Your task to perform on an android device: open app "VLC for Android" (install if not already installed) and enter user name: "Yves@outlook.com" and password: "internally" Image 0: 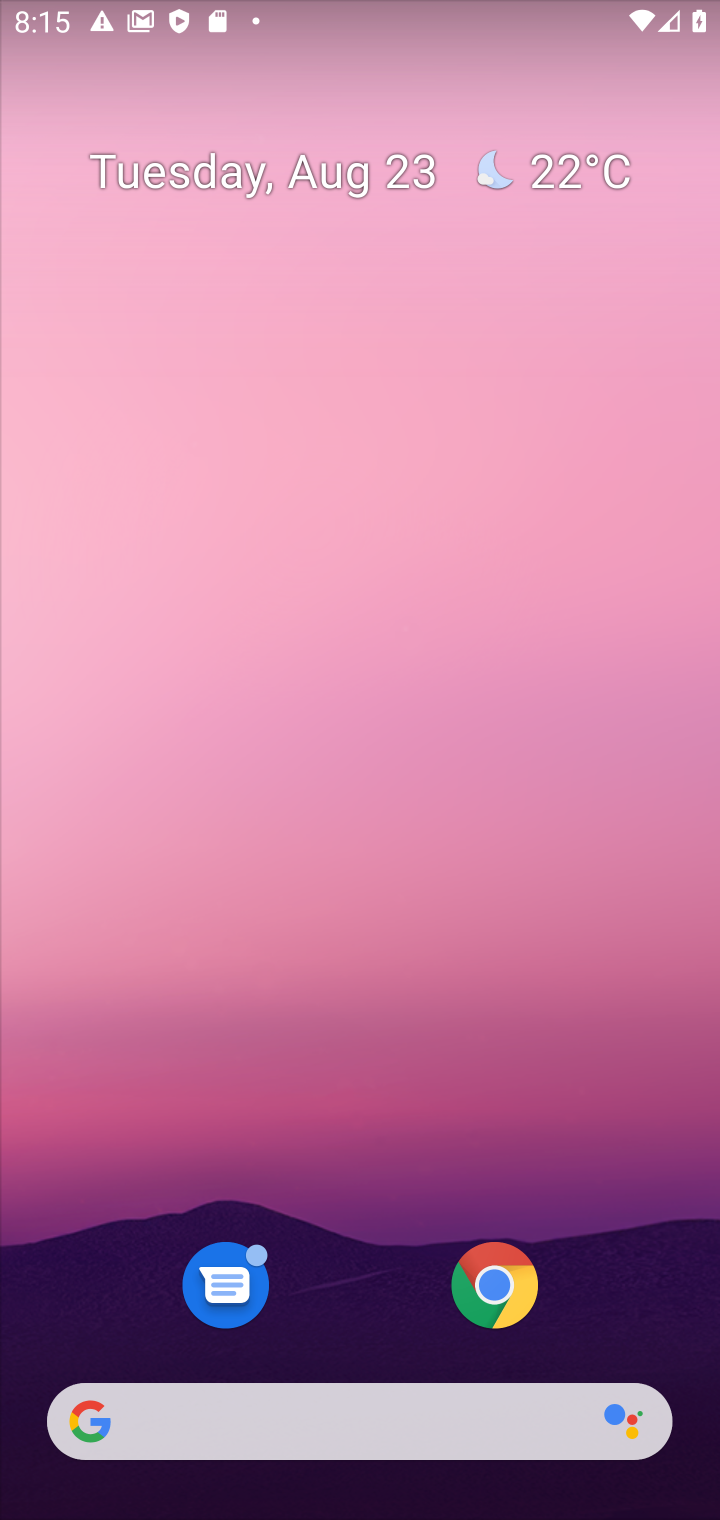
Step 0: drag from (638, 1083) to (562, 445)
Your task to perform on an android device: open app "VLC for Android" (install if not already installed) and enter user name: "Yves@outlook.com" and password: "internally" Image 1: 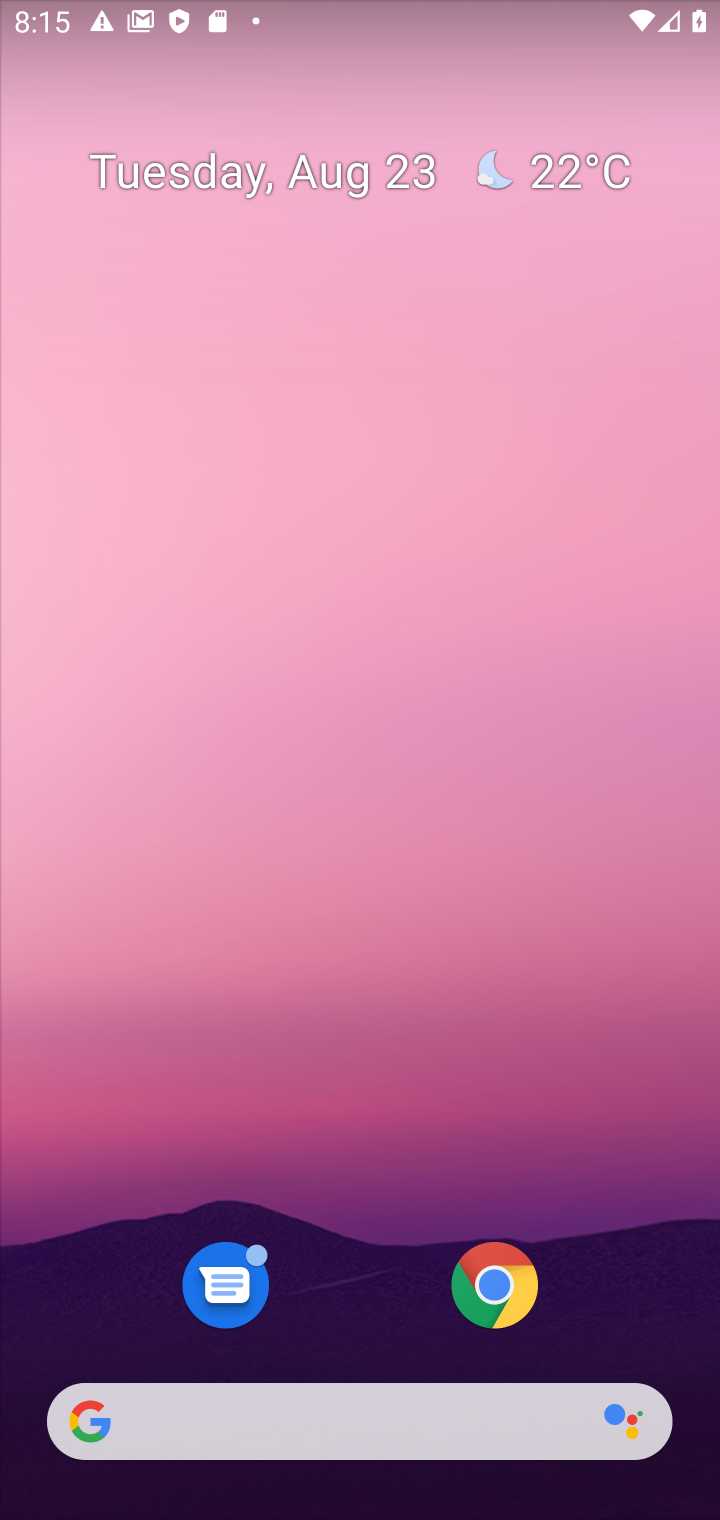
Step 1: drag from (681, 1333) to (528, 278)
Your task to perform on an android device: open app "VLC for Android" (install if not already installed) and enter user name: "Yves@outlook.com" and password: "internally" Image 2: 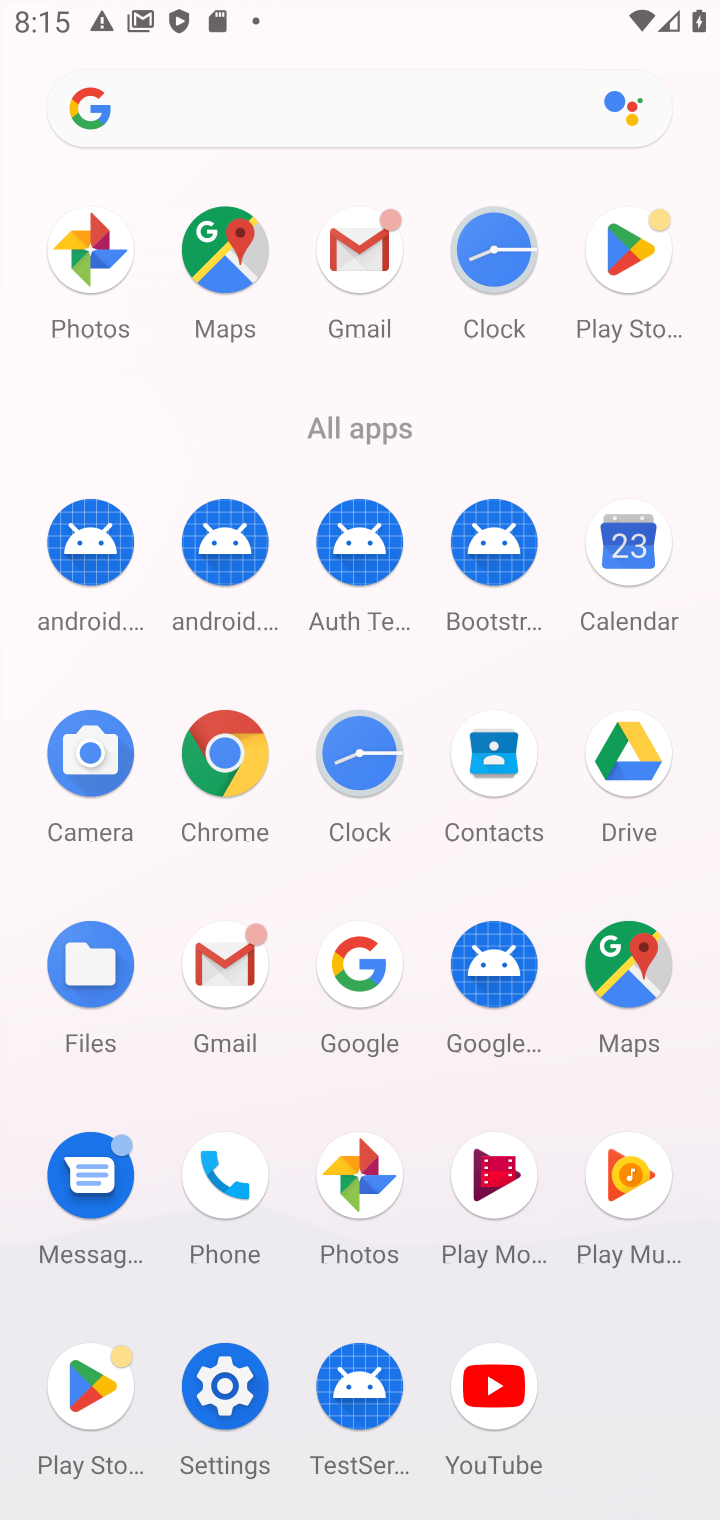
Step 2: click (81, 1378)
Your task to perform on an android device: open app "VLC for Android" (install if not already installed) and enter user name: "Yves@outlook.com" and password: "internally" Image 3: 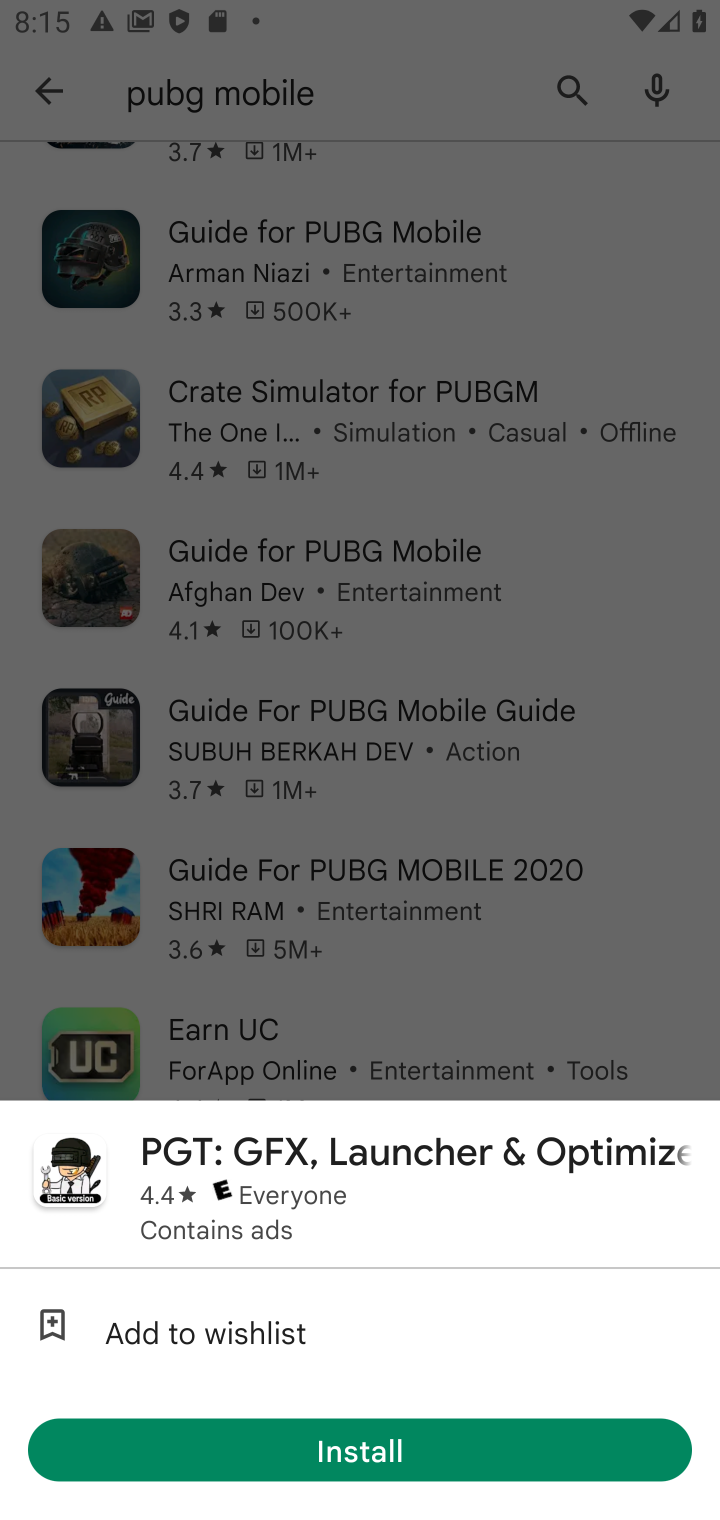
Step 3: click (418, 692)
Your task to perform on an android device: open app "VLC for Android" (install if not already installed) and enter user name: "Yves@outlook.com" and password: "internally" Image 4: 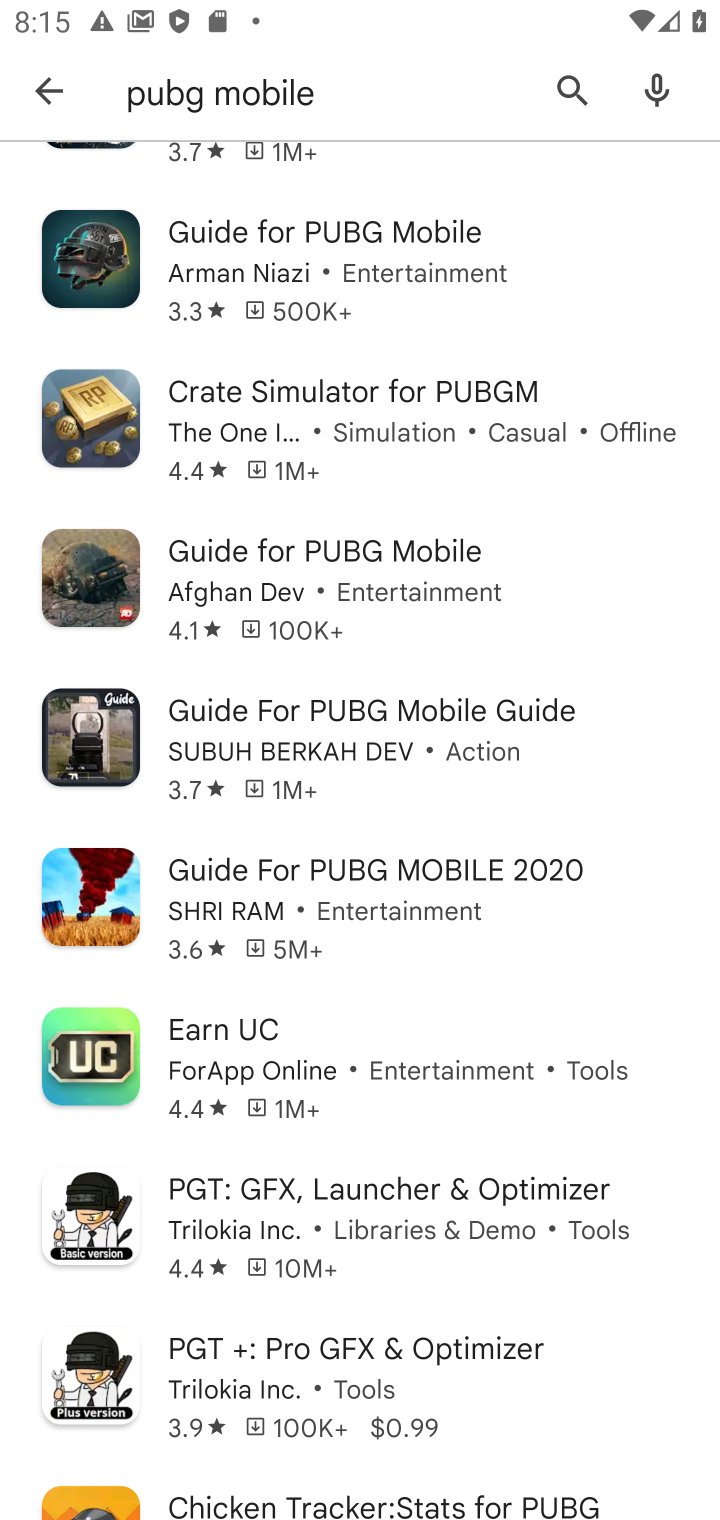
Step 4: click (579, 83)
Your task to perform on an android device: open app "VLC for Android" (install if not already installed) and enter user name: "Yves@outlook.com" and password: "internally" Image 5: 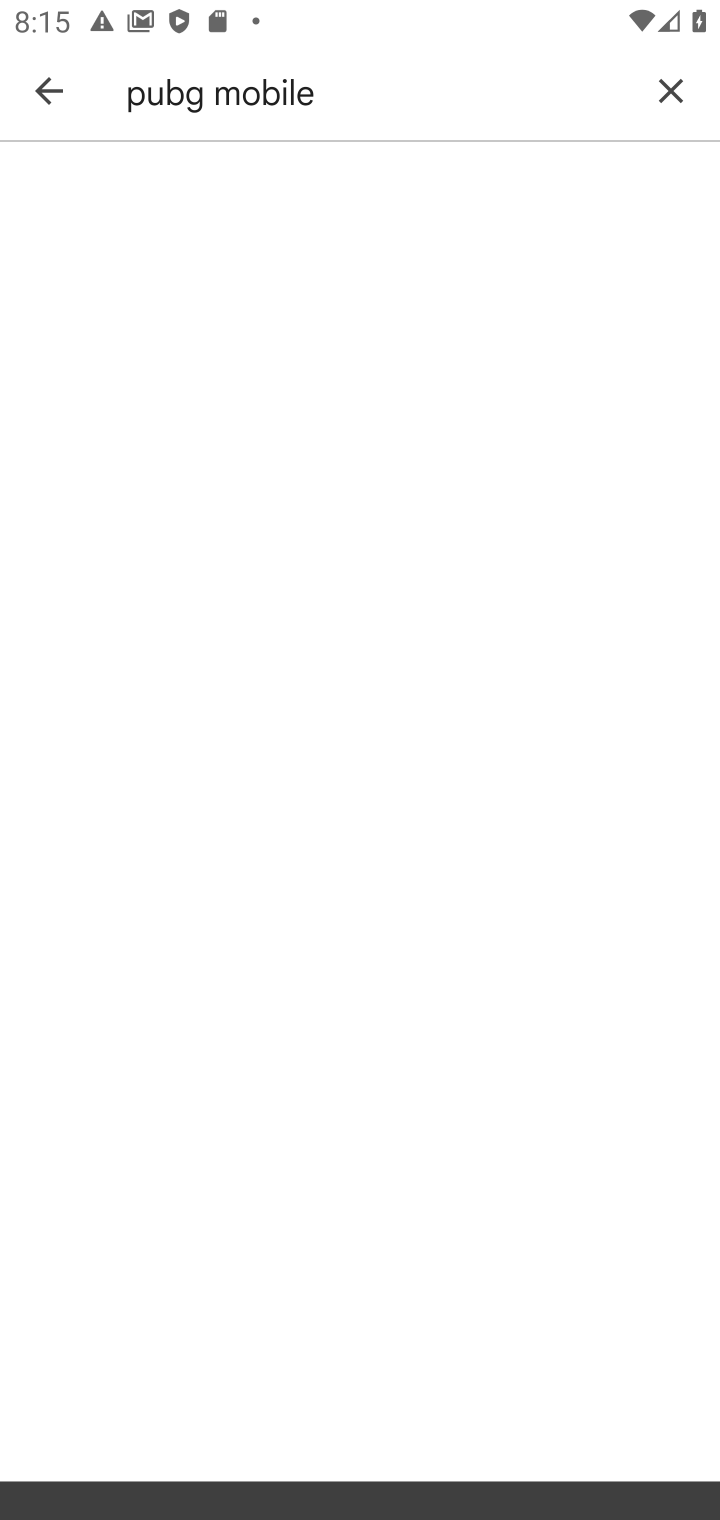
Step 5: click (579, 83)
Your task to perform on an android device: open app "VLC for Android" (install if not already installed) and enter user name: "Yves@outlook.com" and password: "internally" Image 6: 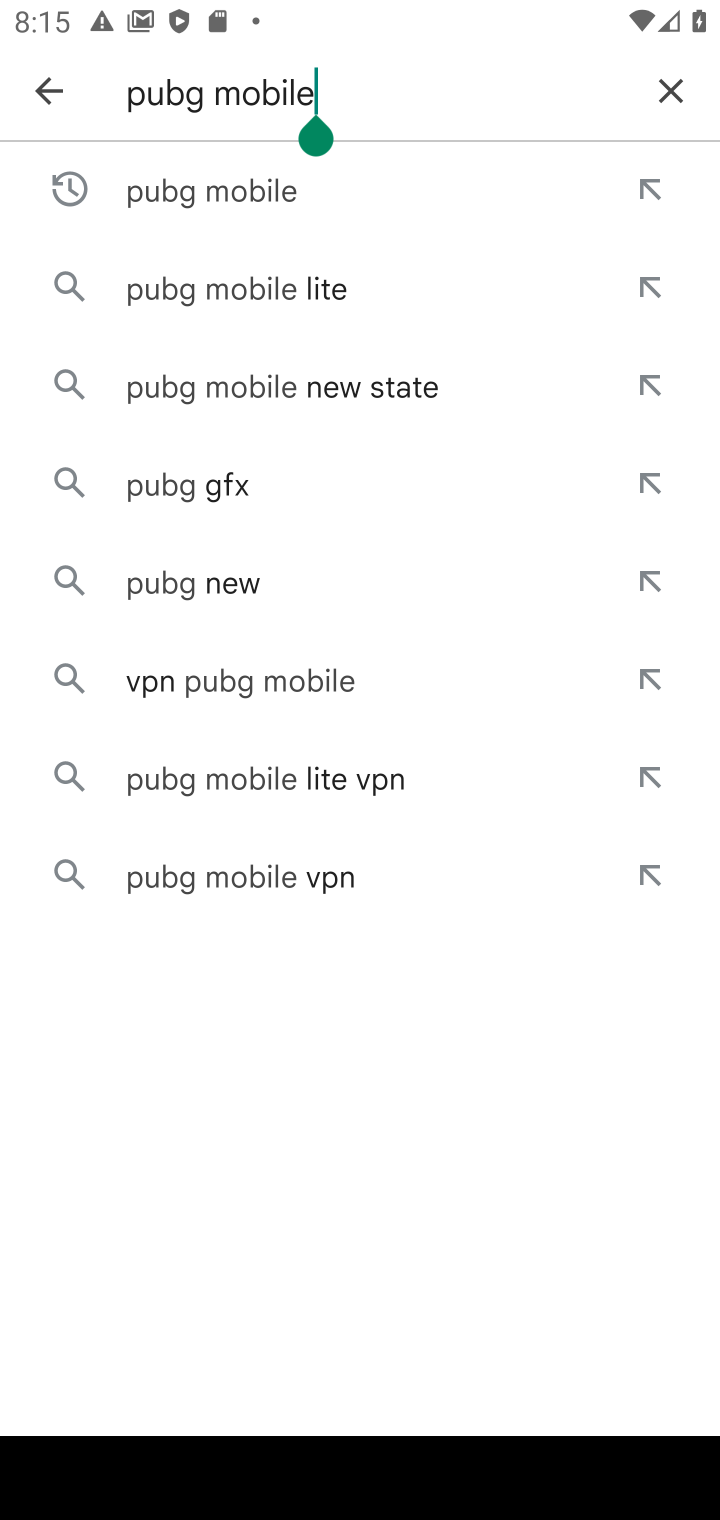
Step 6: click (669, 83)
Your task to perform on an android device: open app "VLC for Android" (install if not already installed) and enter user name: "Yves@outlook.com" and password: "internally" Image 7: 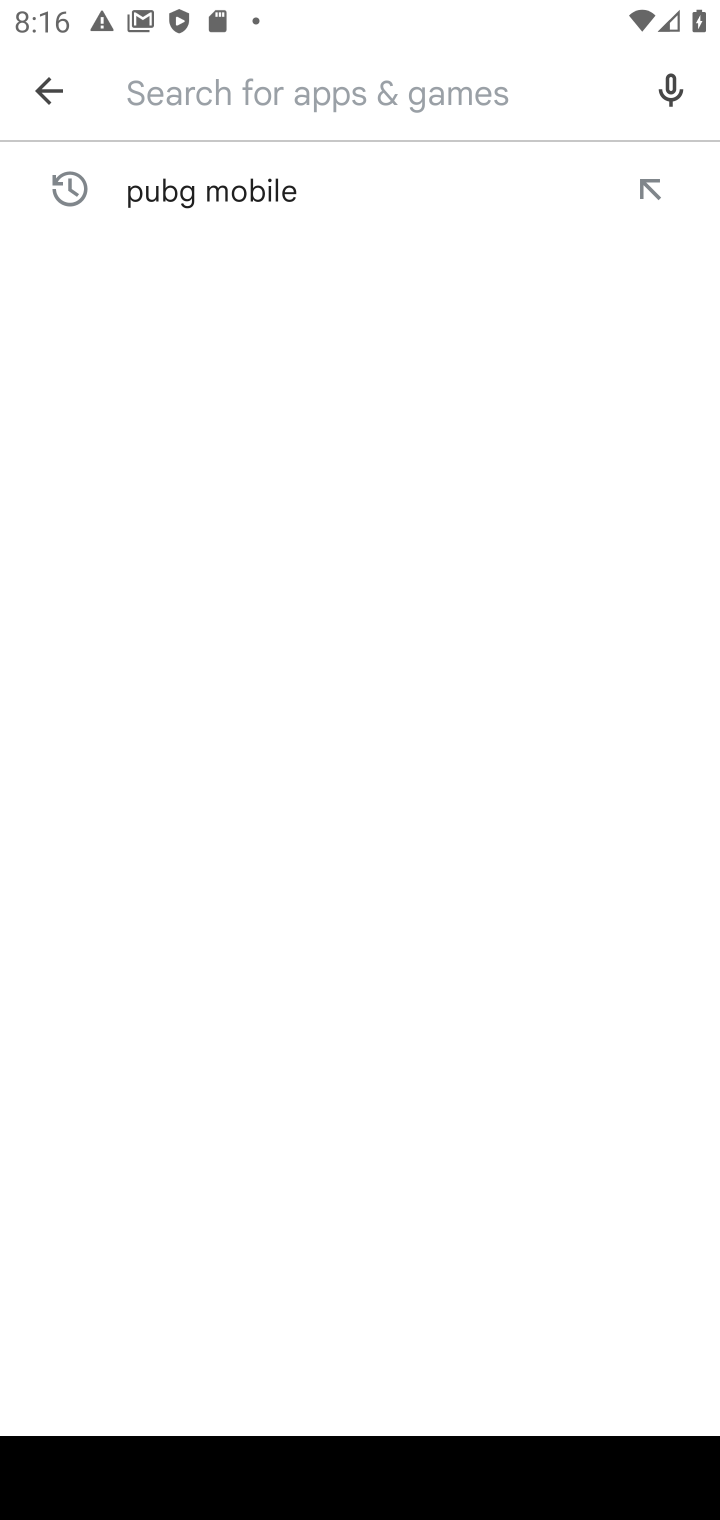
Step 7: type "VLC for Android"
Your task to perform on an android device: open app "VLC for Android" (install if not already installed) and enter user name: "Yves@outlook.com" and password: "internally" Image 8: 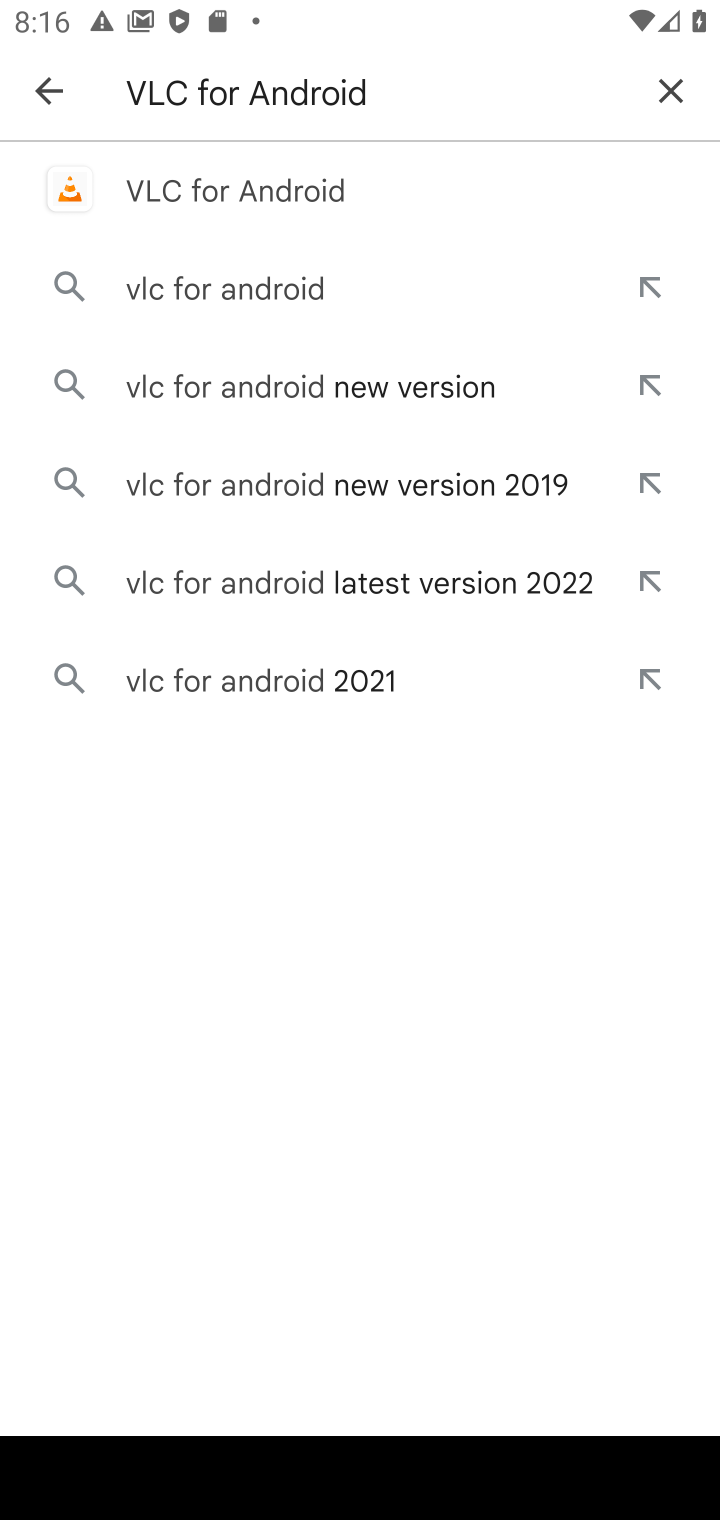
Step 8: click (302, 186)
Your task to perform on an android device: open app "VLC for Android" (install if not already installed) and enter user name: "Yves@outlook.com" and password: "internally" Image 9: 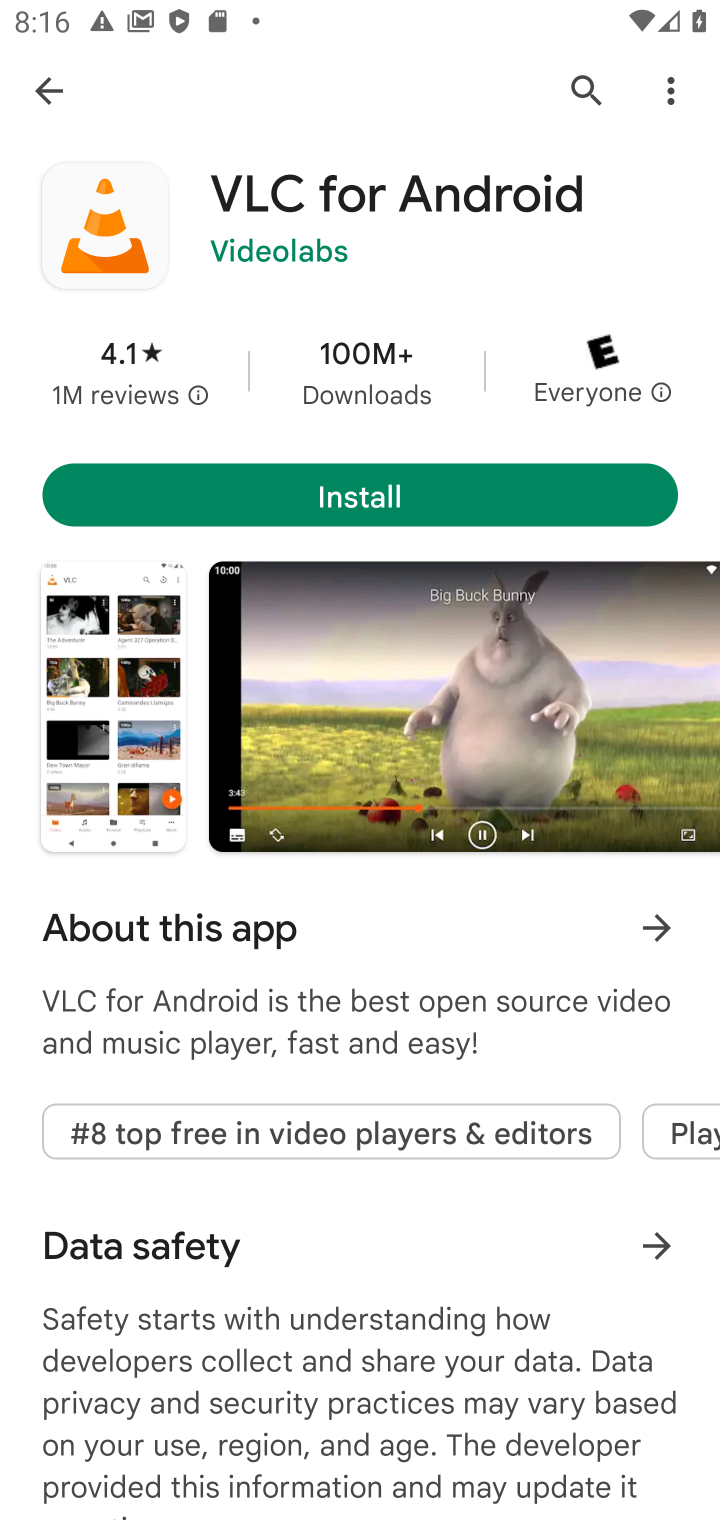
Step 9: click (352, 500)
Your task to perform on an android device: open app "VLC for Android" (install if not already installed) and enter user name: "Yves@outlook.com" and password: "internally" Image 10: 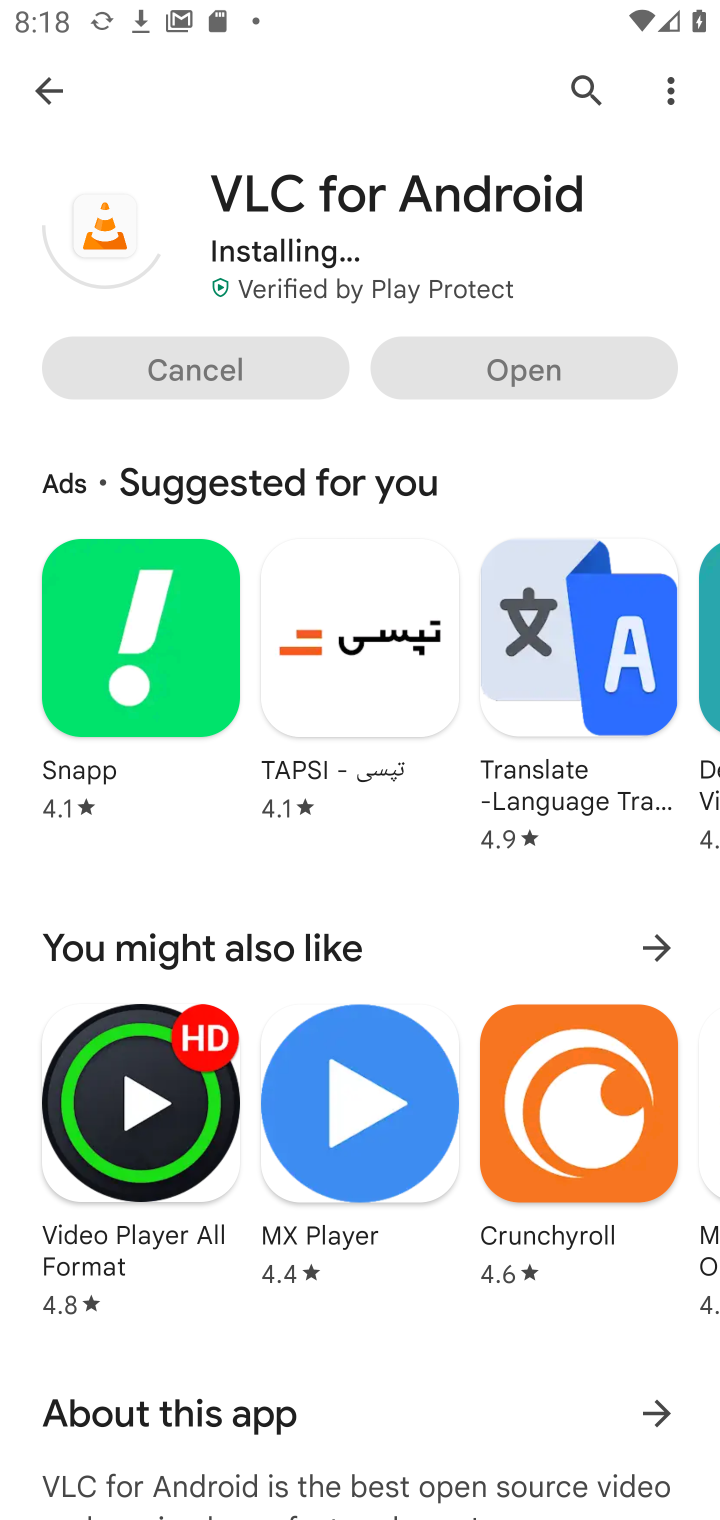
Step 10: click (354, 382)
Your task to perform on an android device: open app "VLC for Android" (install if not already installed) and enter user name: "Yves@outlook.com" and password: "internally" Image 11: 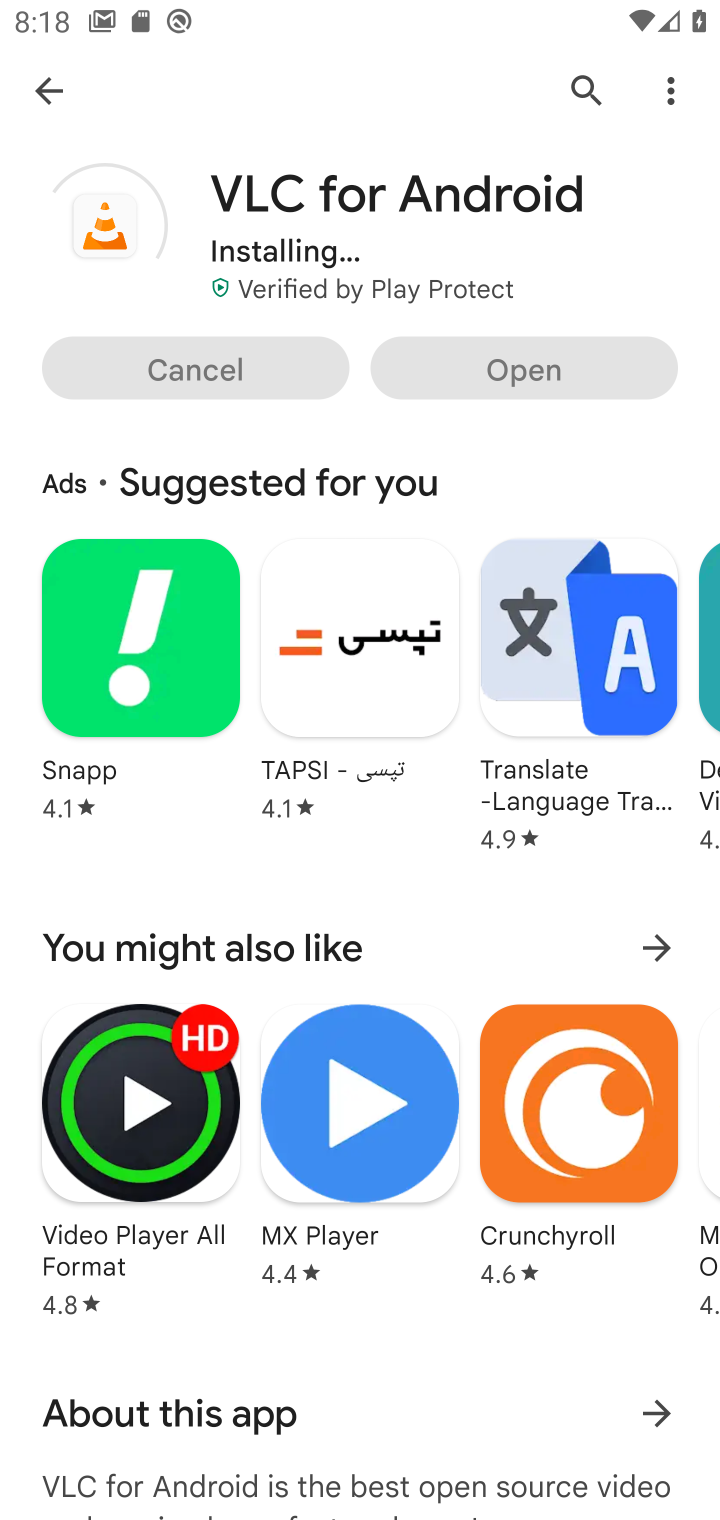
Step 11: click (362, 404)
Your task to perform on an android device: open app "VLC for Android" (install if not already installed) and enter user name: "Yves@outlook.com" and password: "internally" Image 12: 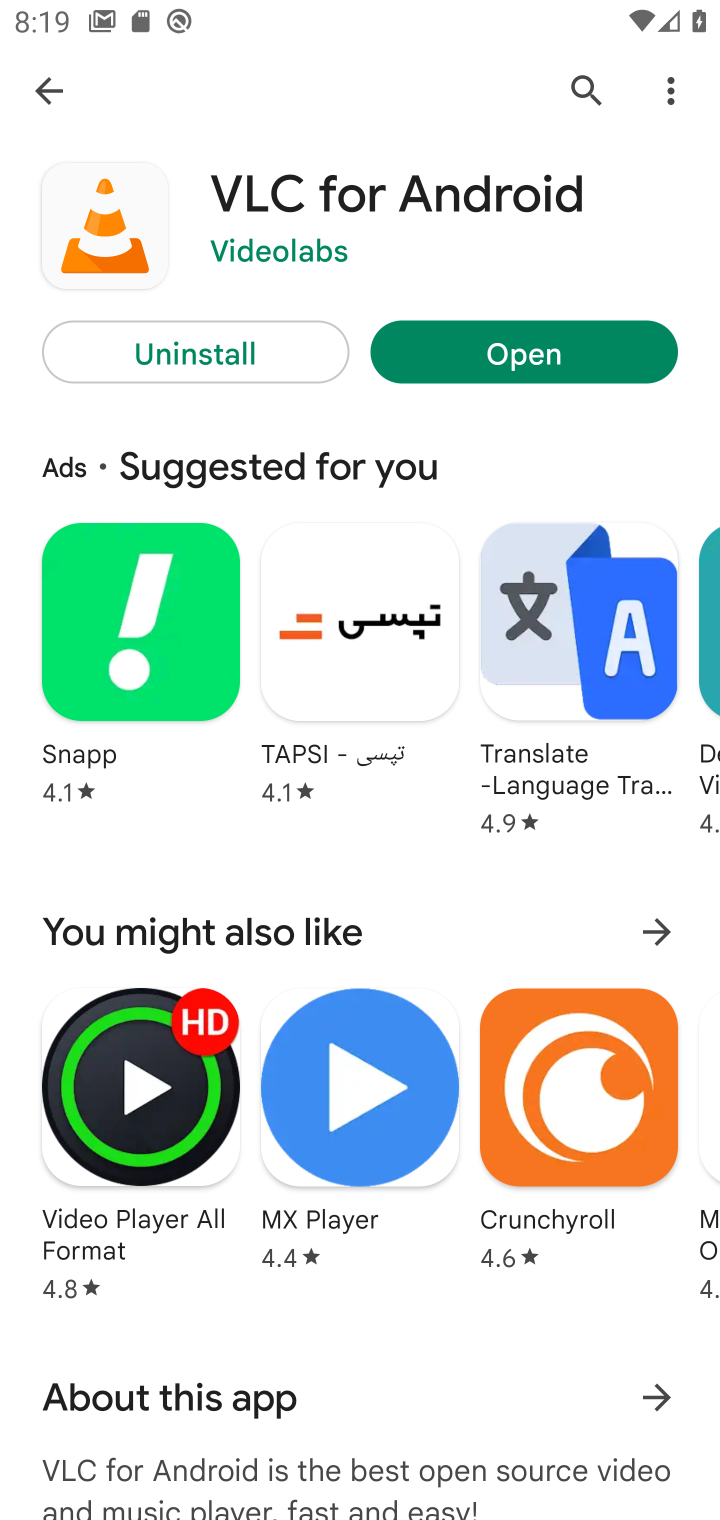
Step 12: click (357, 386)
Your task to perform on an android device: open app "VLC for Android" (install if not already installed) and enter user name: "Yves@outlook.com" and password: "internally" Image 13: 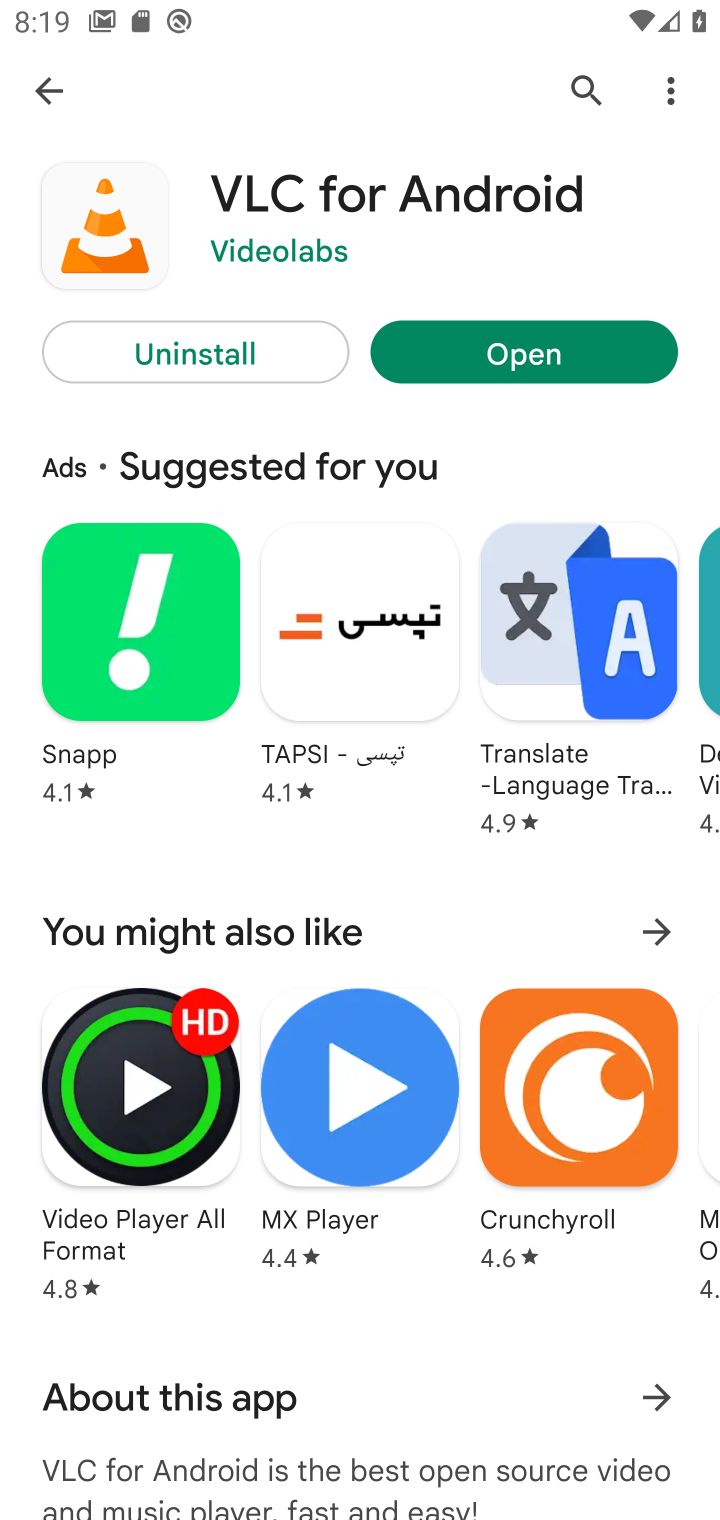
Step 13: click (513, 359)
Your task to perform on an android device: open app "VLC for Android" (install if not already installed) and enter user name: "Yves@outlook.com" and password: "internally" Image 14: 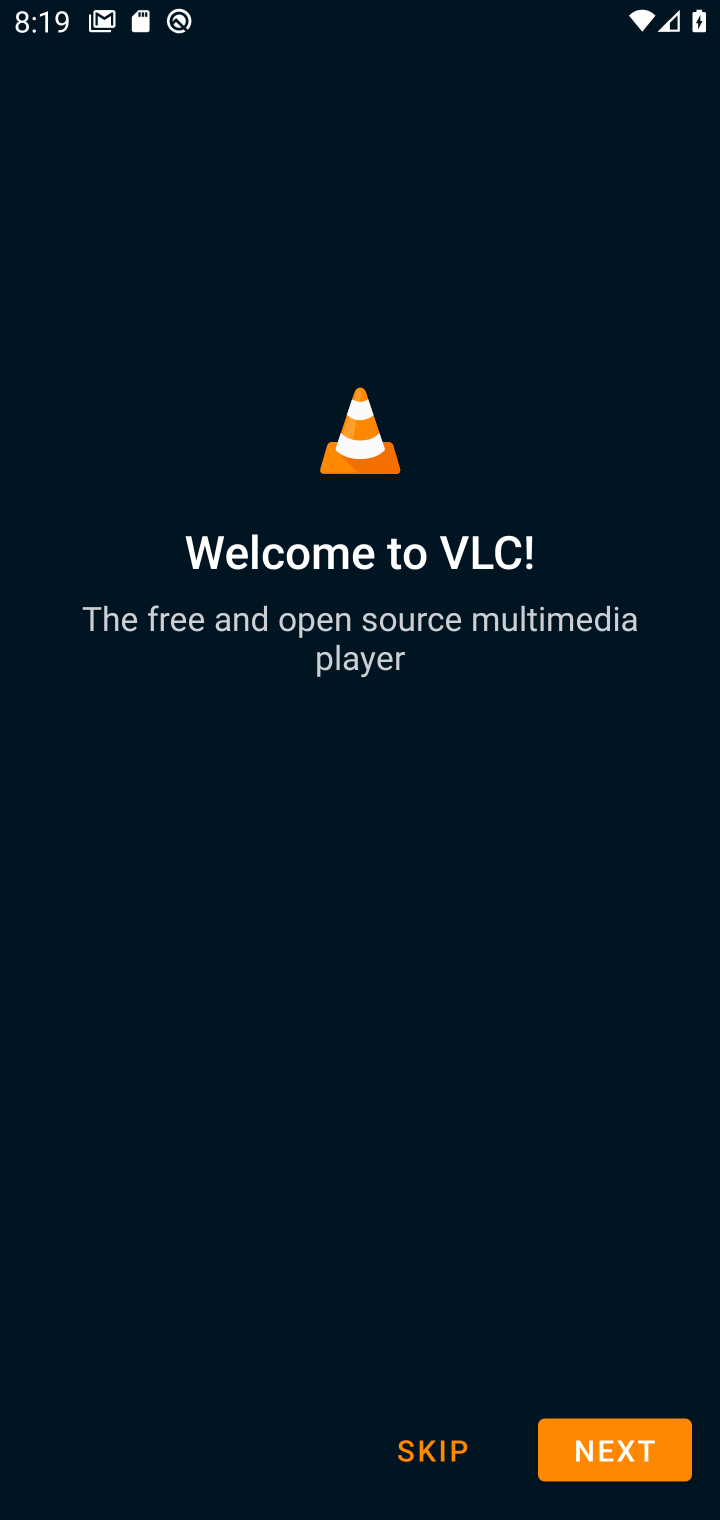
Step 14: click (428, 1453)
Your task to perform on an android device: open app "VLC for Android" (install if not already installed) and enter user name: "Yves@outlook.com" and password: "internally" Image 15: 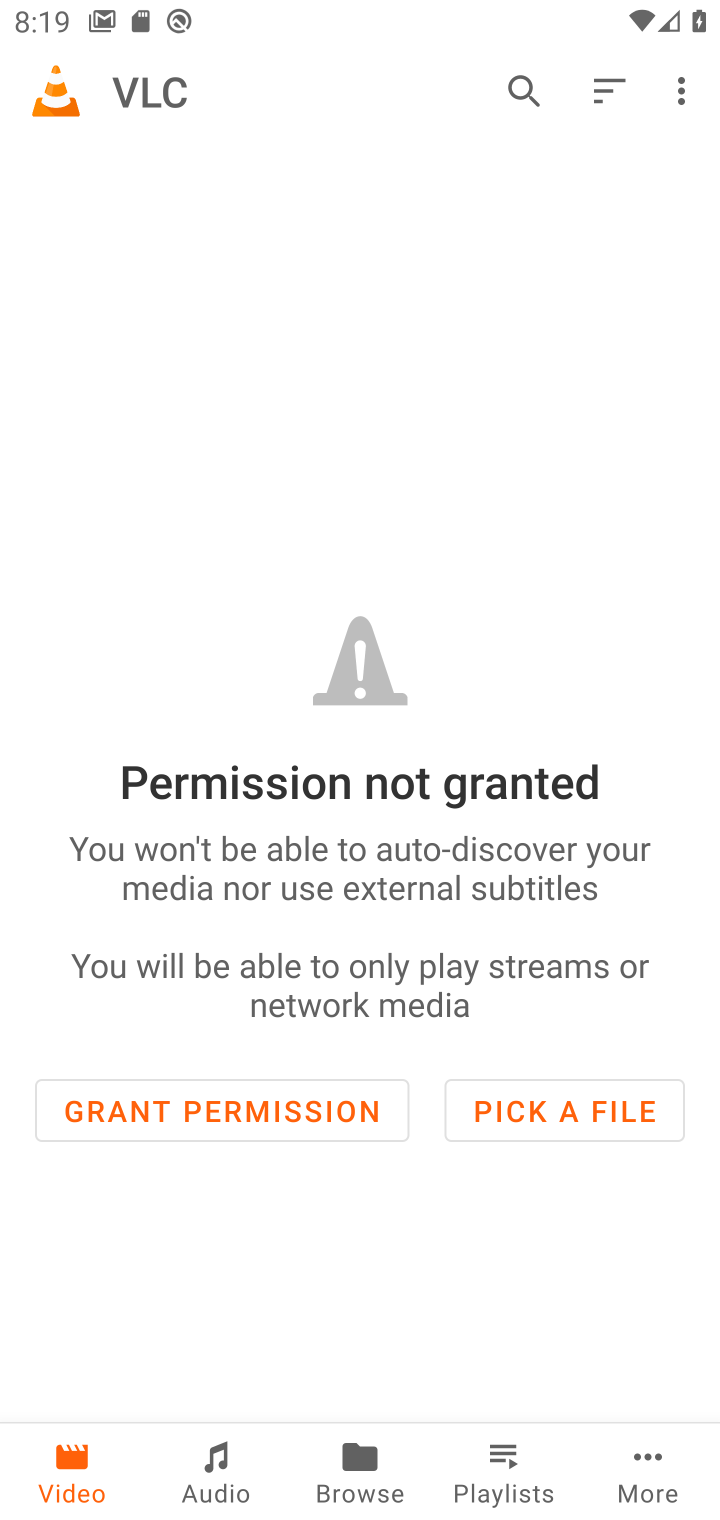
Step 15: click (637, 1455)
Your task to perform on an android device: open app "VLC for Android" (install if not already installed) and enter user name: "Yves@outlook.com" and password: "internally" Image 16: 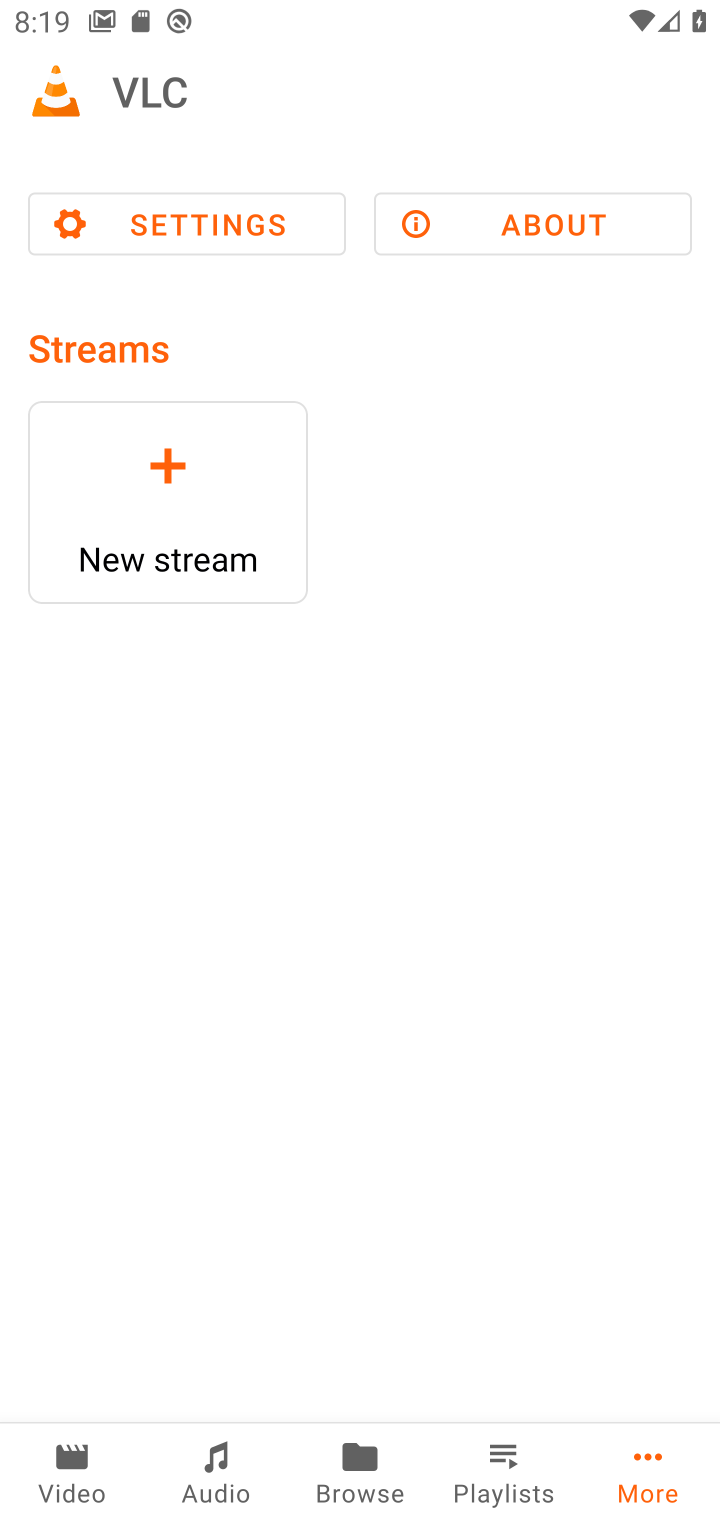
Step 16: task complete